Your task to perform on an android device: Open maps Image 0: 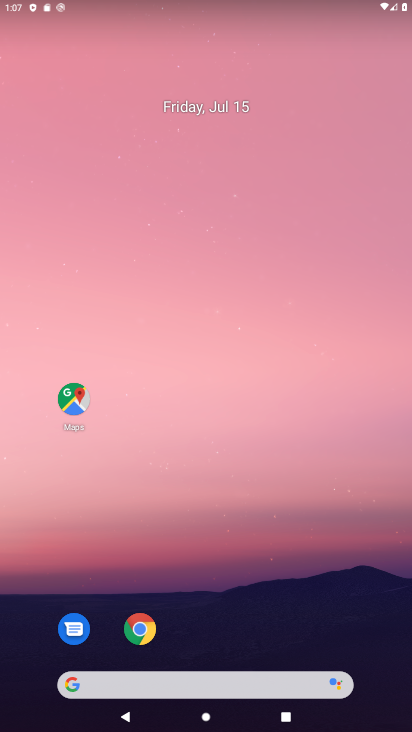
Step 0: drag from (221, 634) to (232, 244)
Your task to perform on an android device: Open maps Image 1: 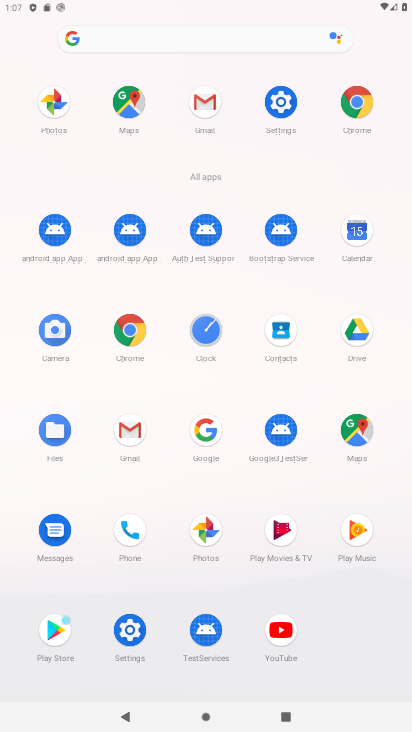
Step 1: drag from (209, 525) to (277, 333)
Your task to perform on an android device: Open maps Image 2: 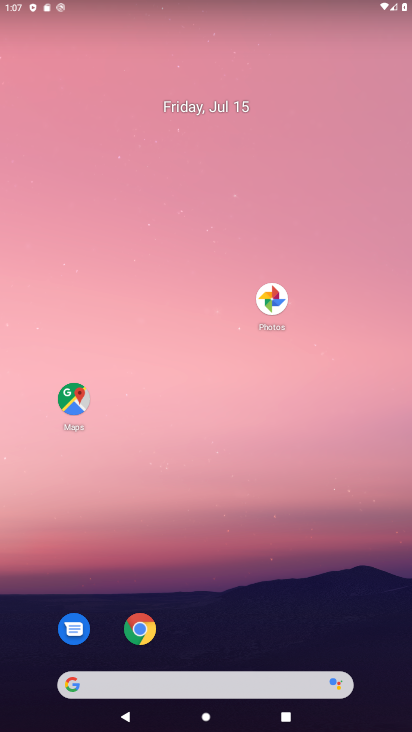
Step 2: click (75, 391)
Your task to perform on an android device: Open maps Image 3: 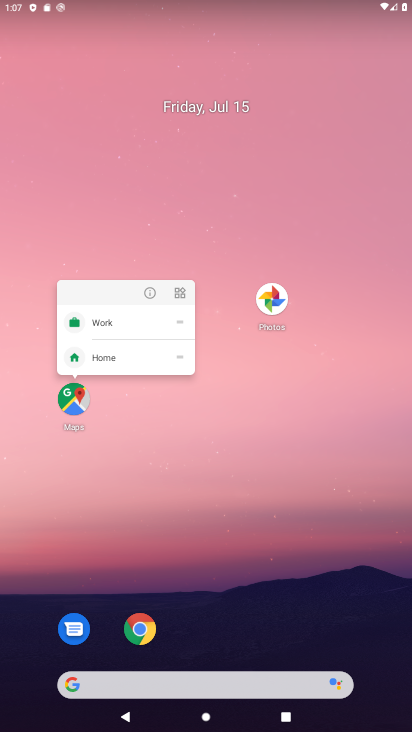
Step 3: click (75, 391)
Your task to perform on an android device: Open maps Image 4: 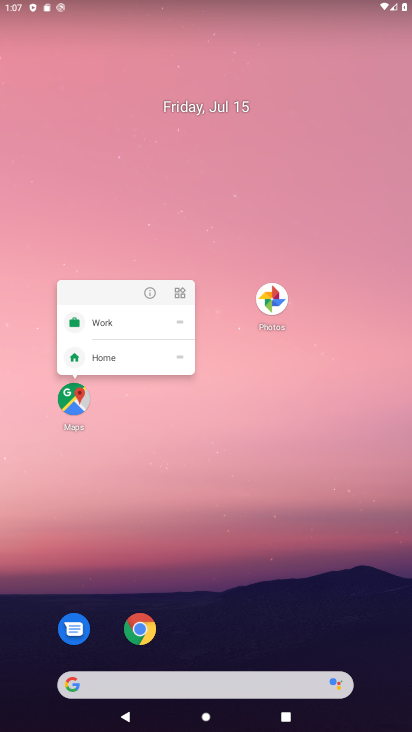
Step 4: click (75, 391)
Your task to perform on an android device: Open maps Image 5: 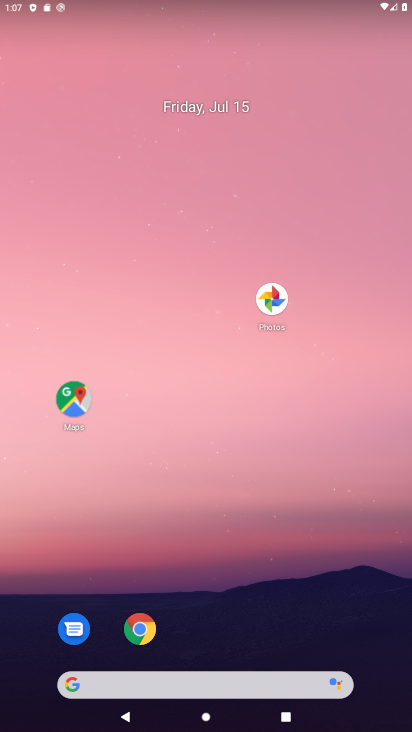
Step 5: click (75, 404)
Your task to perform on an android device: Open maps Image 6: 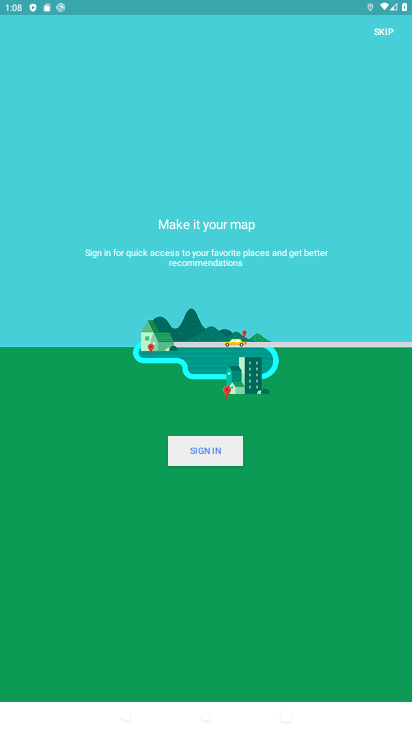
Step 6: click (390, 26)
Your task to perform on an android device: Open maps Image 7: 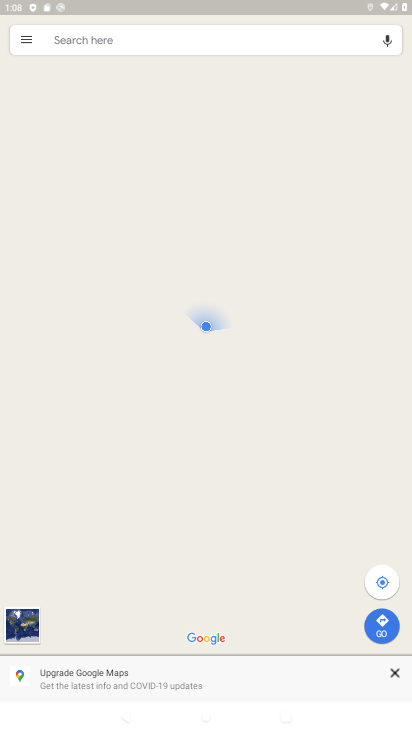
Step 7: task complete